Your task to perform on an android device: toggle notifications settings in the gmail app Image 0: 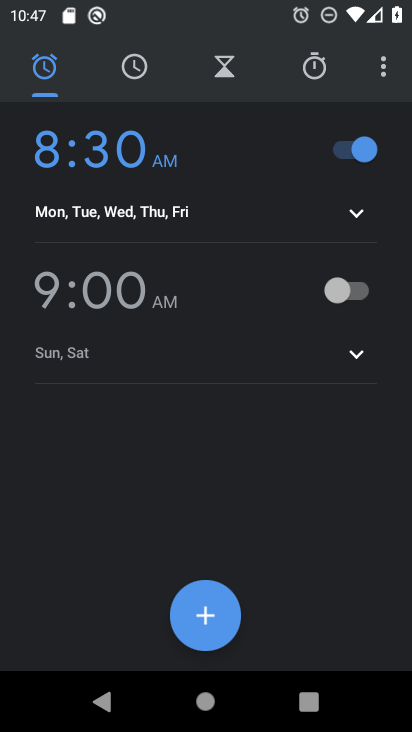
Step 0: press home button
Your task to perform on an android device: toggle notifications settings in the gmail app Image 1: 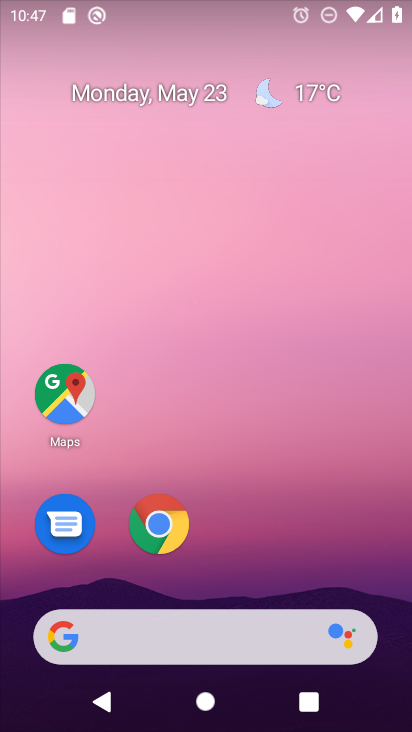
Step 1: drag from (217, 571) to (228, 179)
Your task to perform on an android device: toggle notifications settings in the gmail app Image 2: 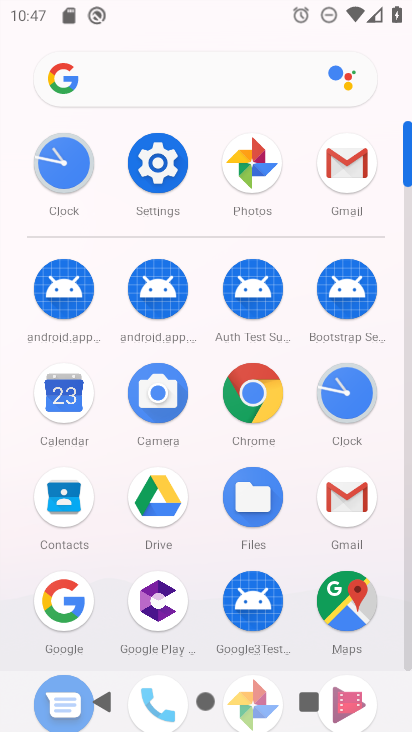
Step 2: click (326, 511)
Your task to perform on an android device: toggle notifications settings in the gmail app Image 3: 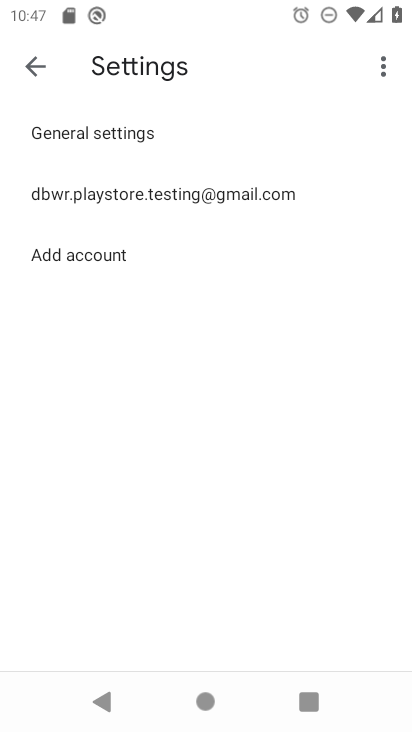
Step 3: click (81, 188)
Your task to perform on an android device: toggle notifications settings in the gmail app Image 4: 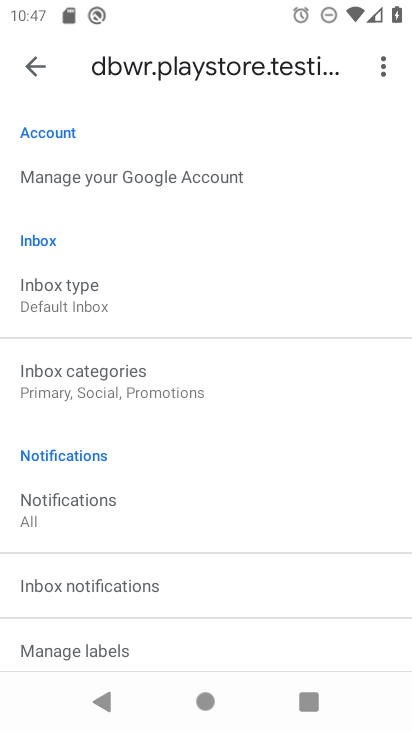
Step 4: drag from (127, 581) to (148, 339)
Your task to perform on an android device: toggle notifications settings in the gmail app Image 5: 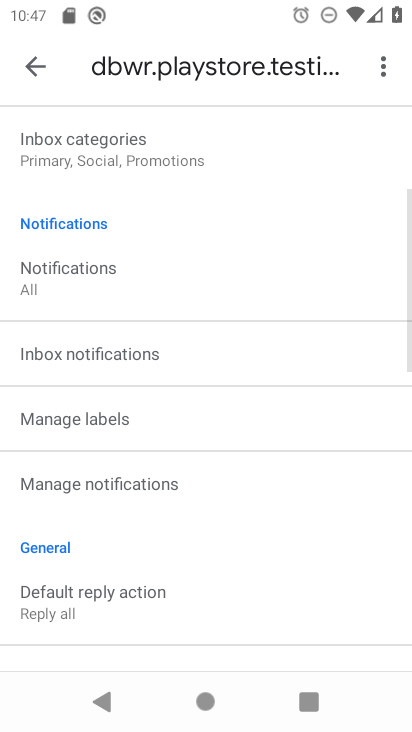
Step 5: click (159, 471)
Your task to perform on an android device: toggle notifications settings in the gmail app Image 6: 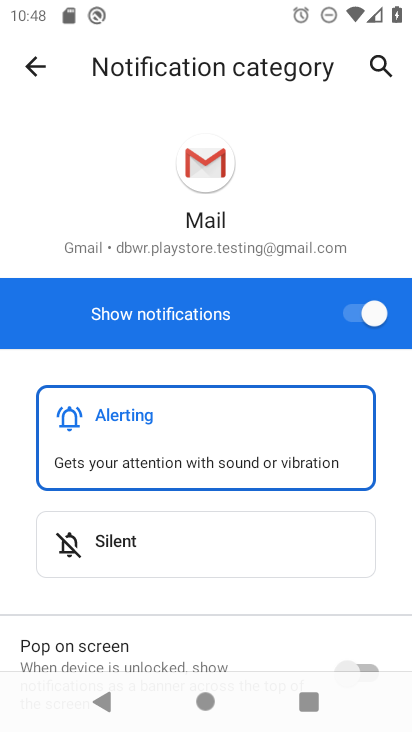
Step 6: task complete